Your task to perform on an android device: turn off location Image 0: 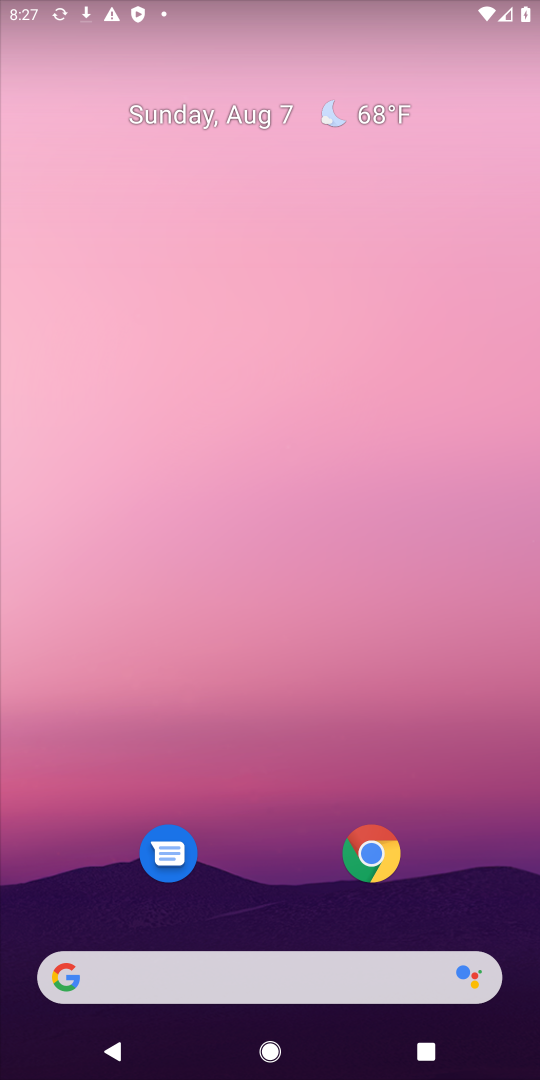
Step 0: drag from (280, 960) to (313, 320)
Your task to perform on an android device: turn off location Image 1: 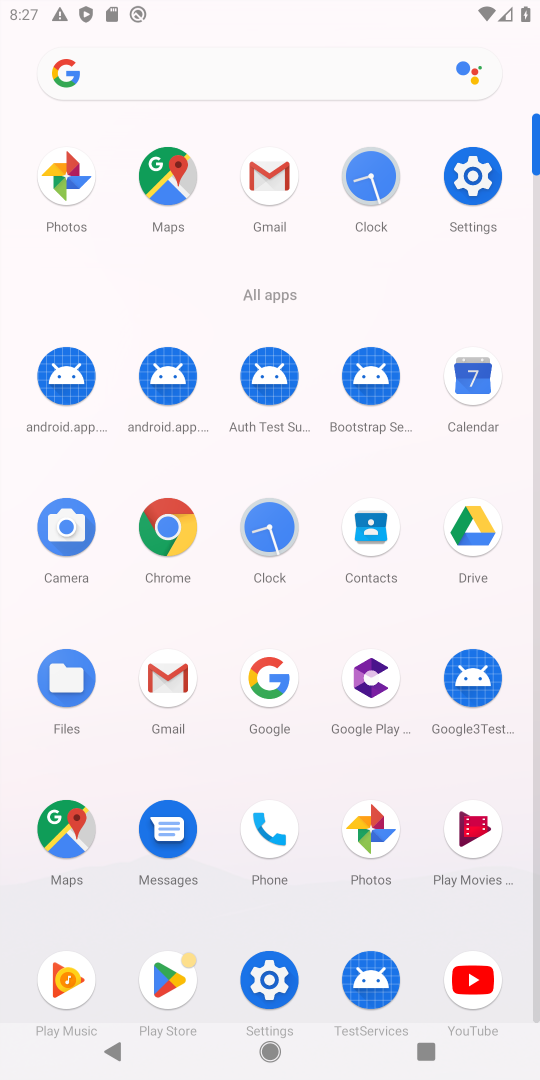
Step 1: click (465, 171)
Your task to perform on an android device: turn off location Image 2: 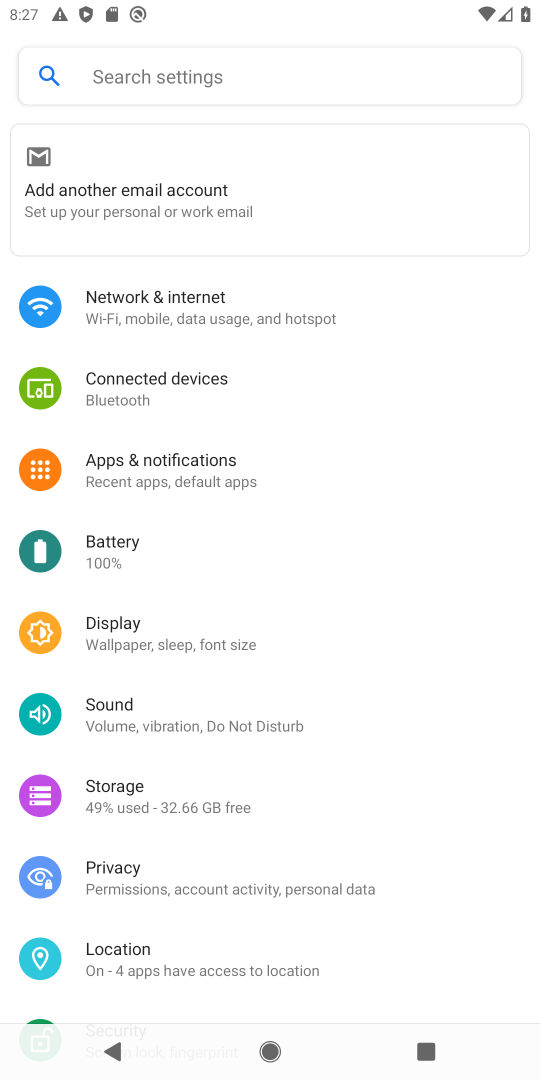
Step 2: click (180, 954)
Your task to perform on an android device: turn off location Image 3: 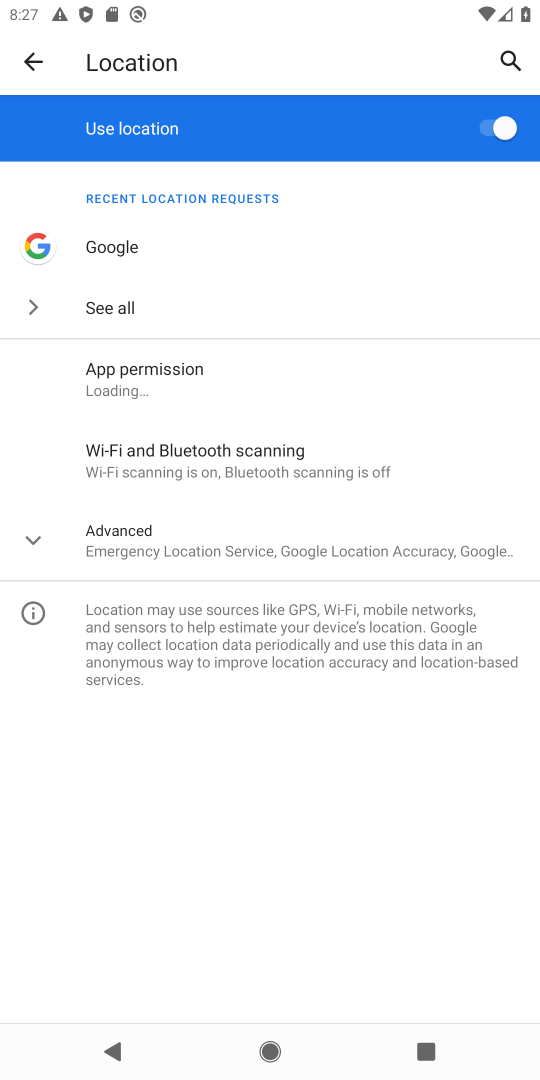
Step 3: click (485, 112)
Your task to perform on an android device: turn off location Image 4: 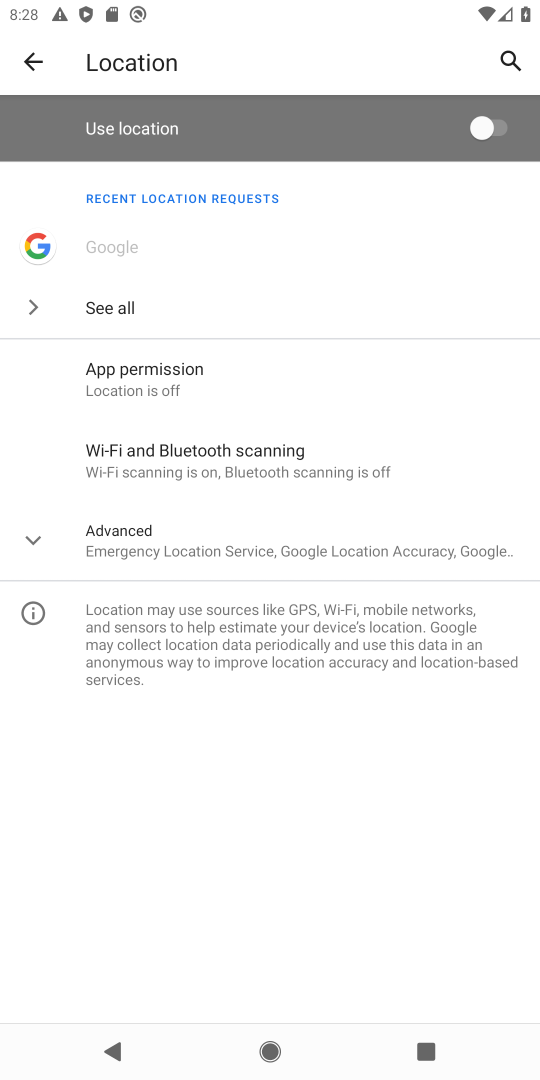
Step 4: task complete